Your task to perform on an android device: Go to notification settings Image 0: 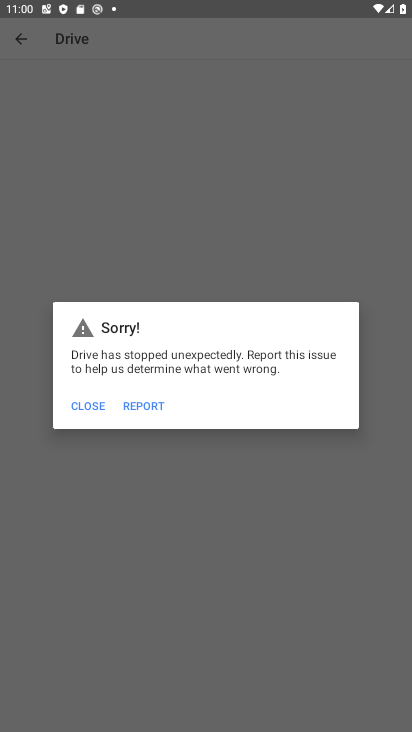
Step 0: press home button
Your task to perform on an android device: Go to notification settings Image 1: 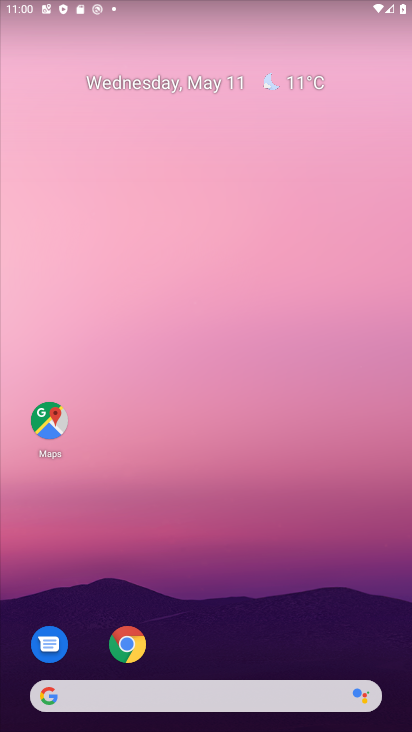
Step 1: drag from (218, 662) to (208, 82)
Your task to perform on an android device: Go to notification settings Image 2: 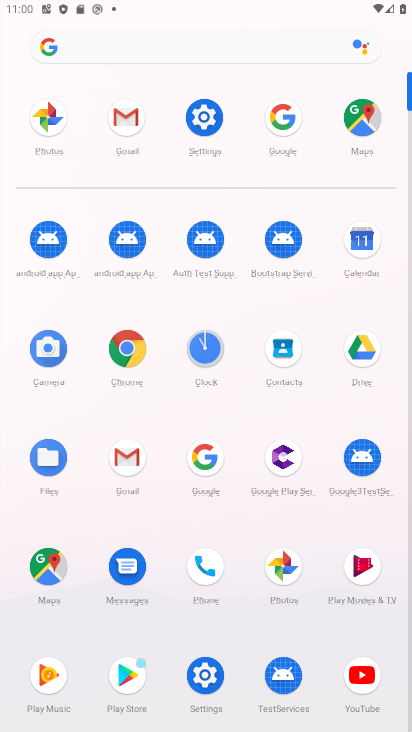
Step 2: click (203, 108)
Your task to perform on an android device: Go to notification settings Image 3: 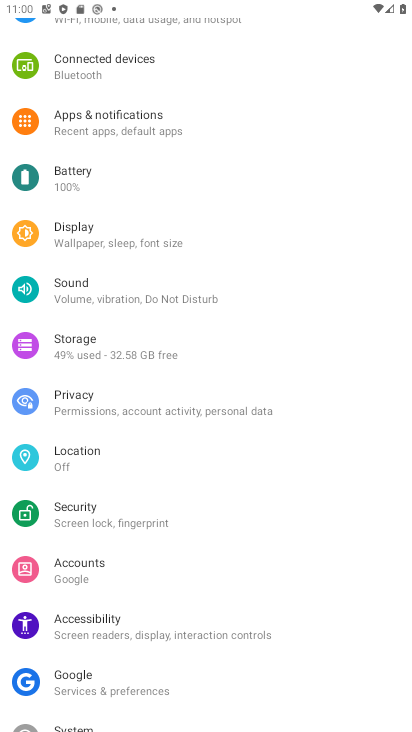
Step 3: click (115, 125)
Your task to perform on an android device: Go to notification settings Image 4: 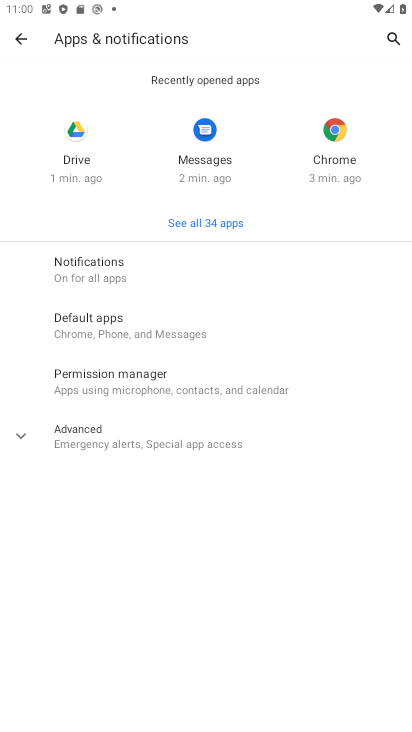
Step 4: click (129, 267)
Your task to perform on an android device: Go to notification settings Image 5: 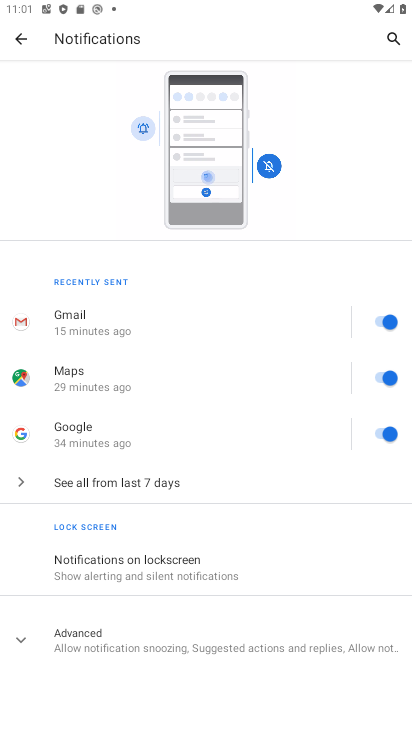
Step 5: click (76, 635)
Your task to perform on an android device: Go to notification settings Image 6: 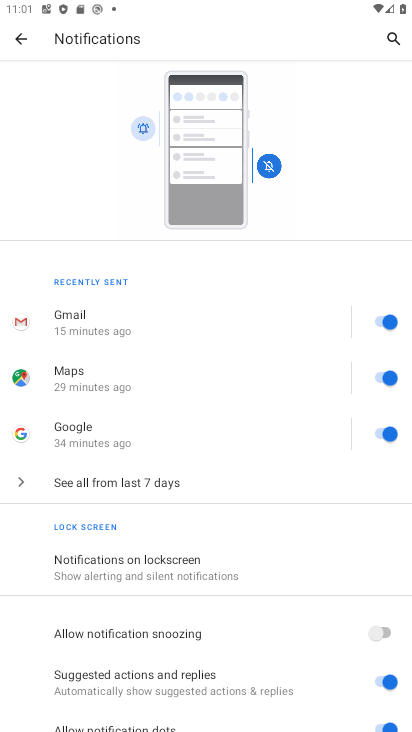
Step 6: task complete